Your task to perform on an android device: Open settings Image 0: 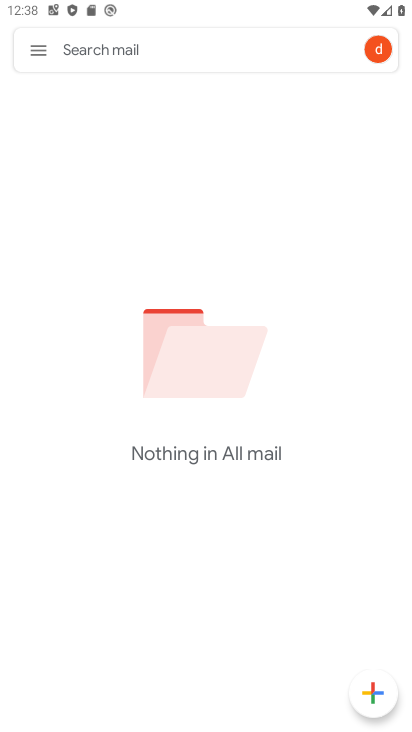
Step 0: press home button
Your task to perform on an android device: Open settings Image 1: 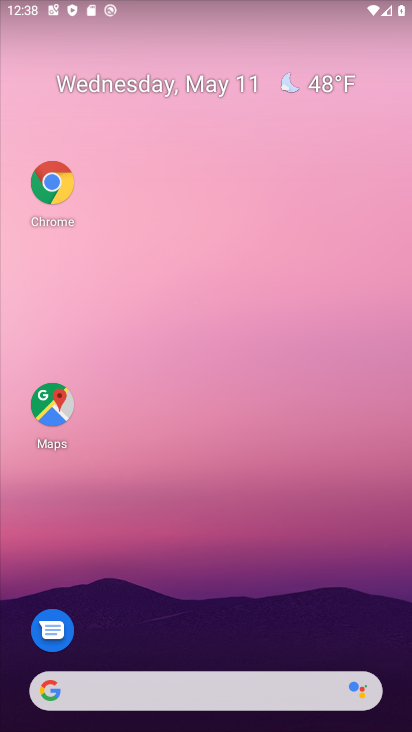
Step 1: drag from (191, 644) to (140, 9)
Your task to perform on an android device: Open settings Image 2: 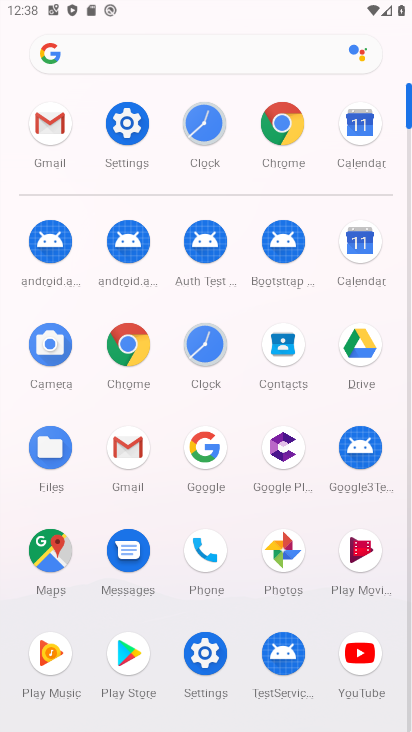
Step 2: click (119, 125)
Your task to perform on an android device: Open settings Image 3: 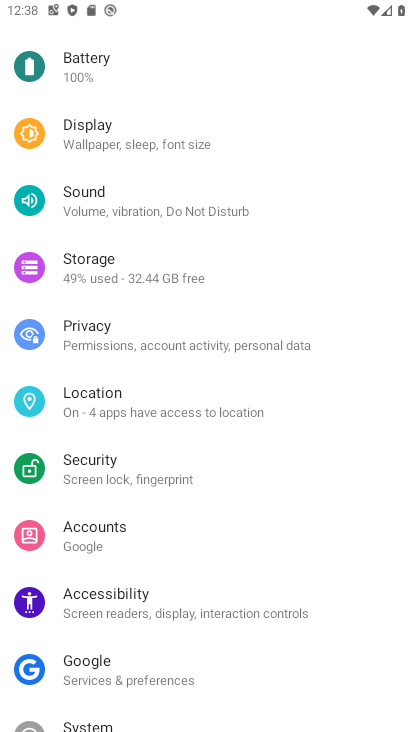
Step 3: task complete